Your task to perform on an android device: Go to sound settings Image 0: 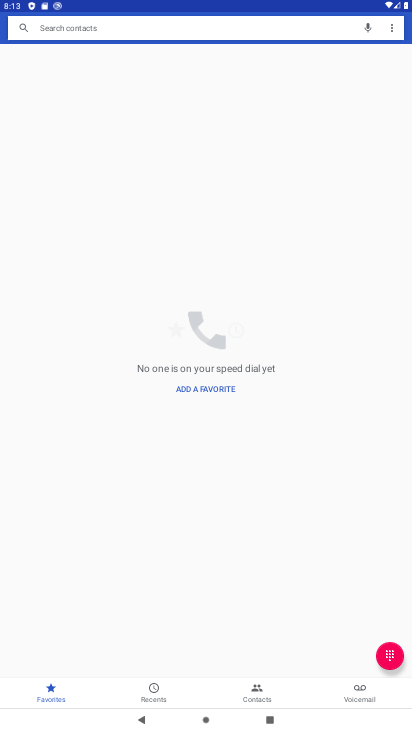
Step 0: press home button
Your task to perform on an android device: Go to sound settings Image 1: 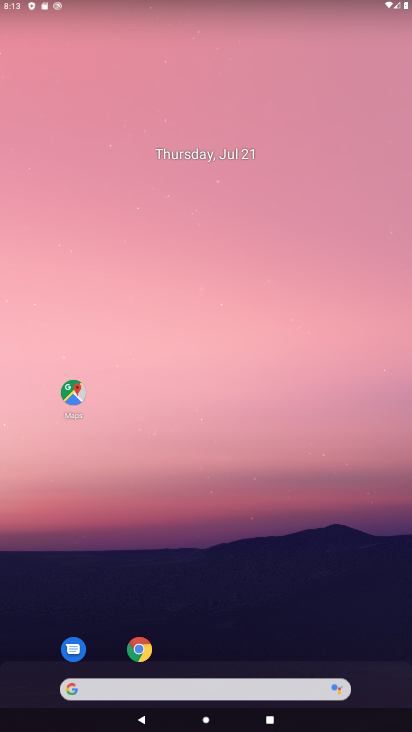
Step 1: drag from (235, 403) to (233, 52)
Your task to perform on an android device: Go to sound settings Image 2: 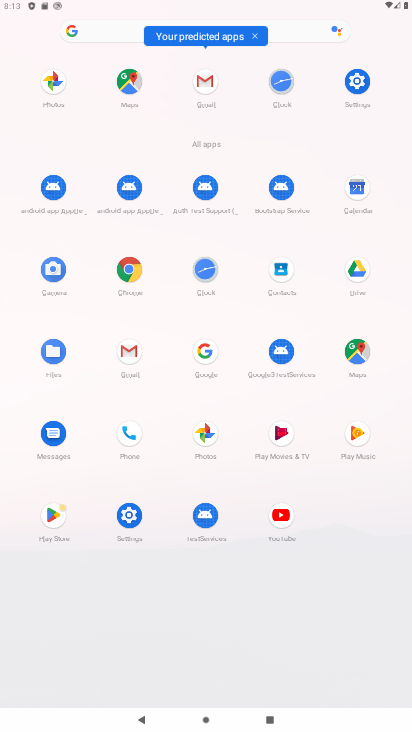
Step 2: click (358, 78)
Your task to perform on an android device: Go to sound settings Image 3: 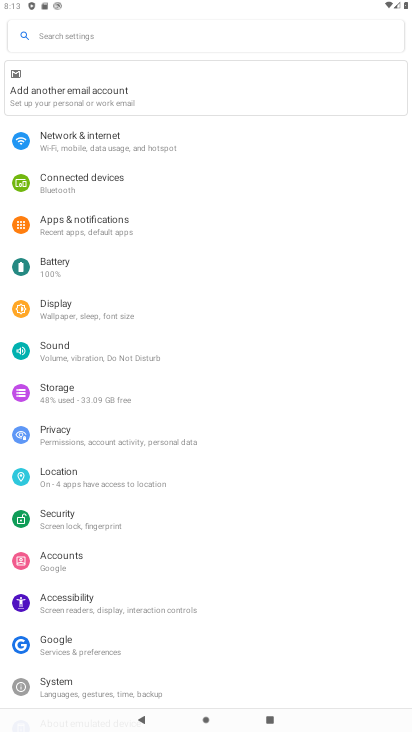
Step 3: click (92, 350)
Your task to perform on an android device: Go to sound settings Image 4: 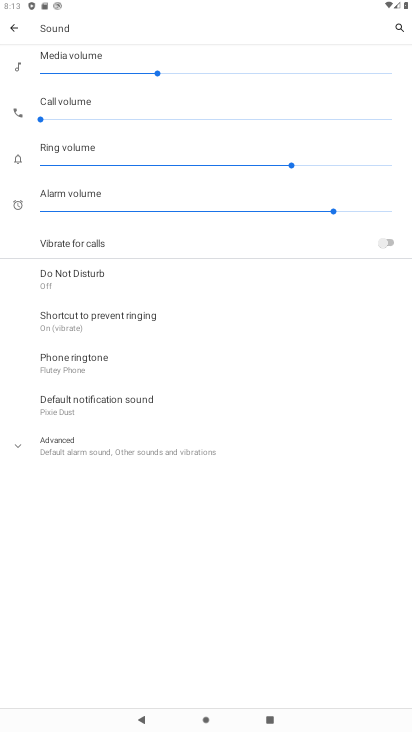
Step 4: task complete